Your task to perform on an android device: find snoozed emails in the gmail app Image 0: 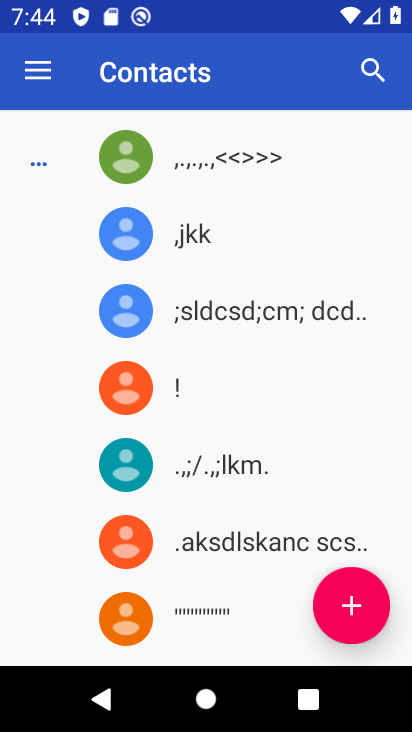
Step 0: press home button
Your task to perform on an android device: find snoozed emails in the gmail app Image 1: 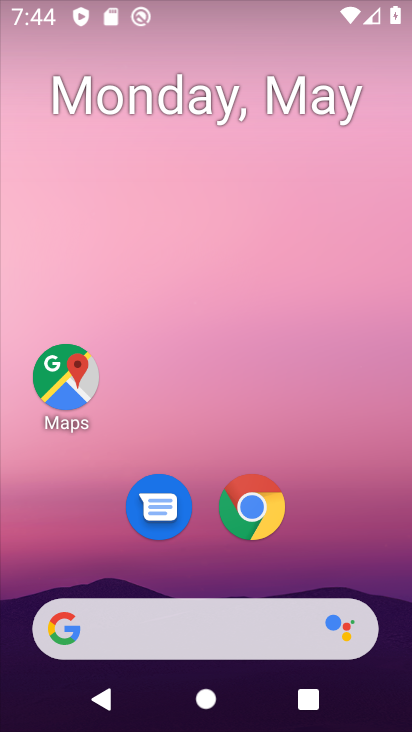
Step 1: drag from (373, 448) to (335, 130)
Your task to perform on an android device: find snoozed emails in the gmail app Image 2: 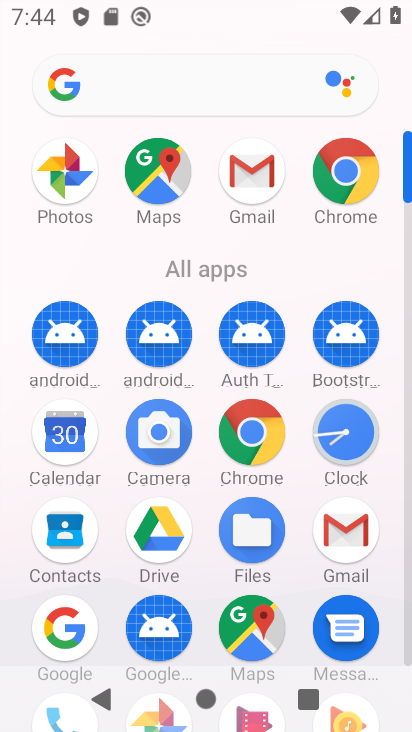
Step 2: click (265, 182)
Your task to perform on an android device: find snoozed emails in the gmail app Image 3: 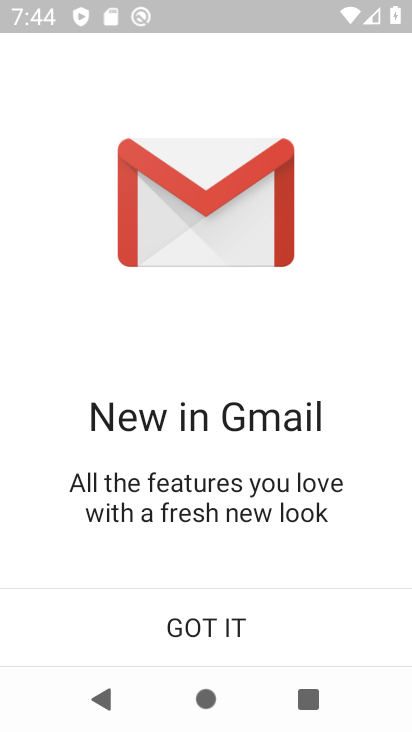
Step 3: click (241, 633)
Your task to perform on an android device: find snoozed emails in the gmail app Image 4: 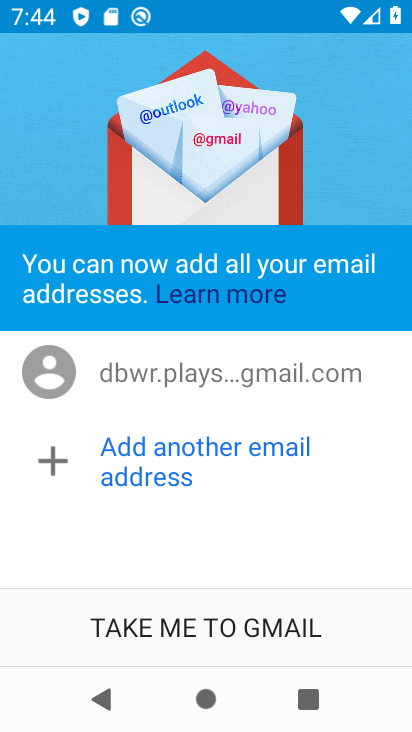
Step 4: click (241, 633)
Your task to perform on an android device: find snoozed emails in the gmail app Image 5: 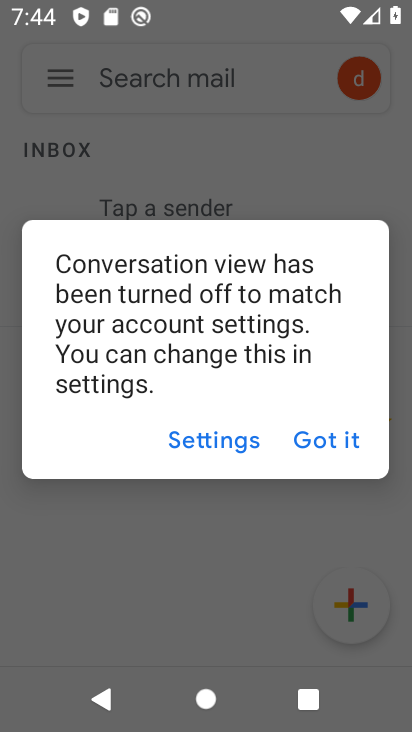
Step 5: click (356, 457)
Your task to perform on an android device: find snoozed emails in the gmail app Image 6: 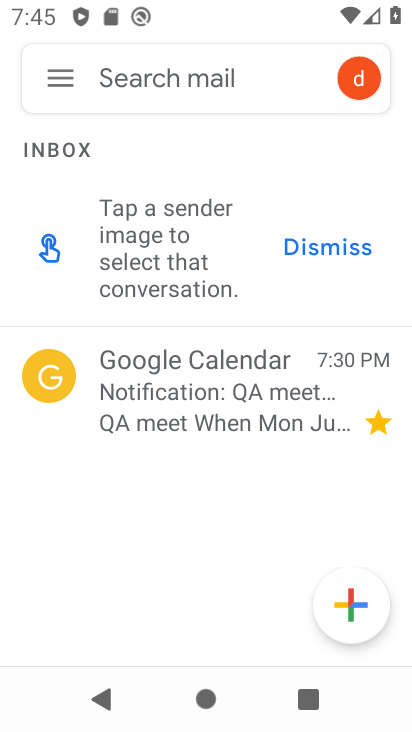
Step 6: click (61, 73)
Your task to perform on an android device: find snoozed emails in the gmail app Image 7: 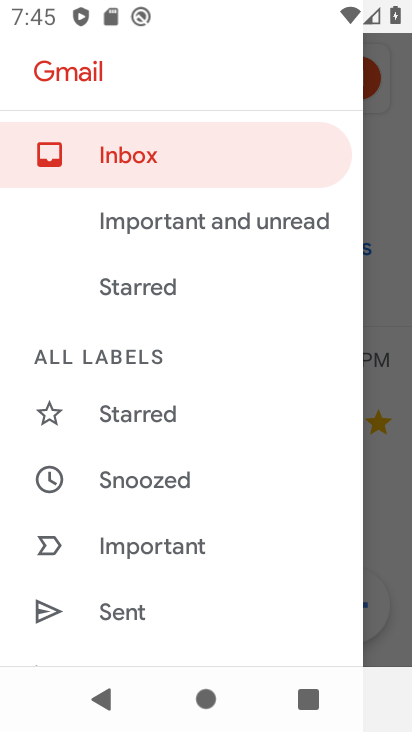
Step 7: click (174, 492)
Your task to perform on an android device: find snoozed emails in the gmail app Image 8: 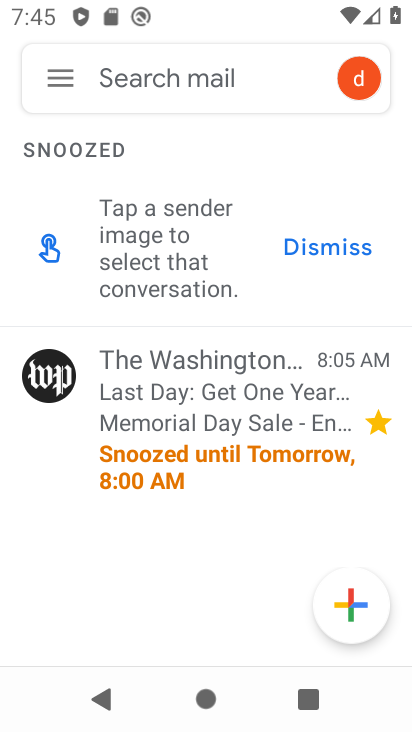
Step 8: task complete